Your task to perform on an android device: see tabs open on other devices in the chrome app Image 0: 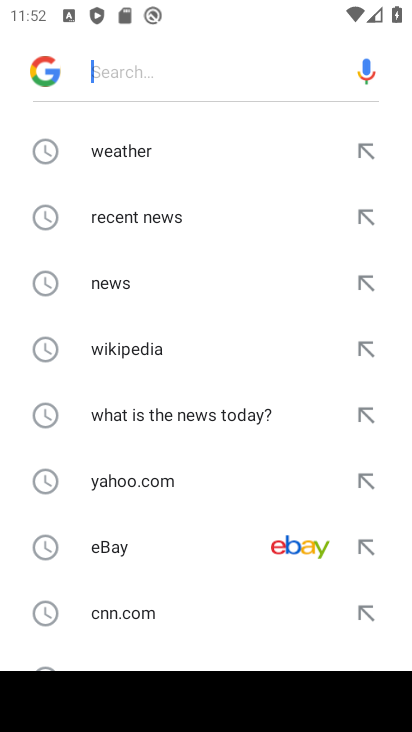
Step 0: press home button
Your task to perform on an android device: see tabs open on other devices in the chrome app Image 1: 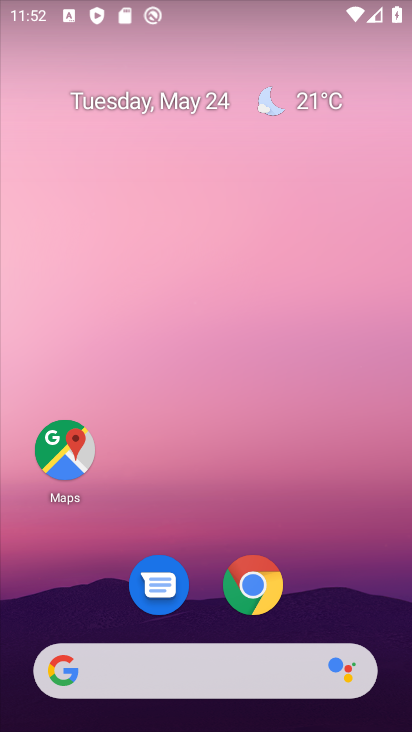
Step 1: click (246, 583)
Your task to perform on an android device: see tabs open on other devices in the chrome app Image 2: 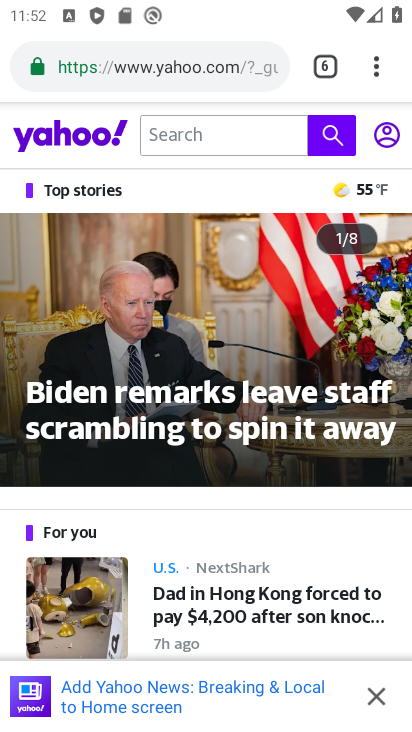
Step 2: click (371, 59)
Your task to perform on an android device: see tabs open on other devices in the chrome app Image 3: 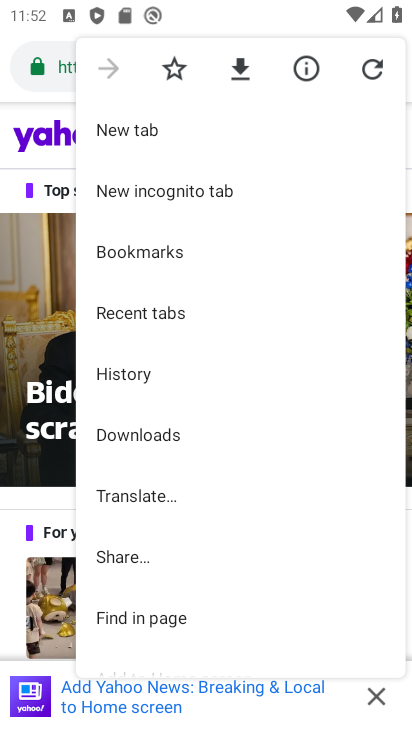
Step 3: click (187, 315)
Your task to perform on an android device: see tabs open on other devices in the chrome app Image 4: 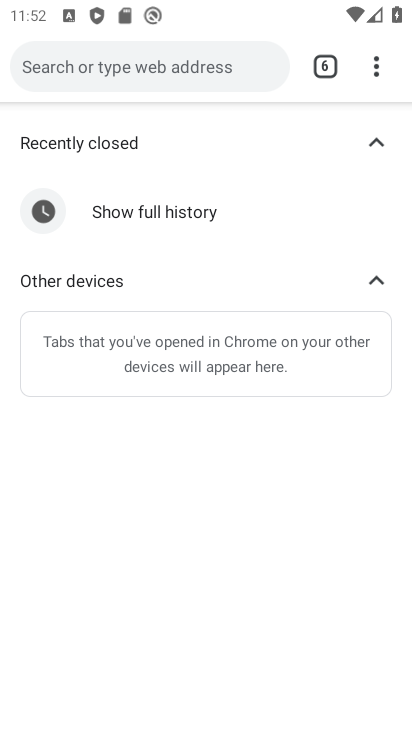
Step 4: task complete